Your task to perform on an android device: Go to Wikipedia Image 0: 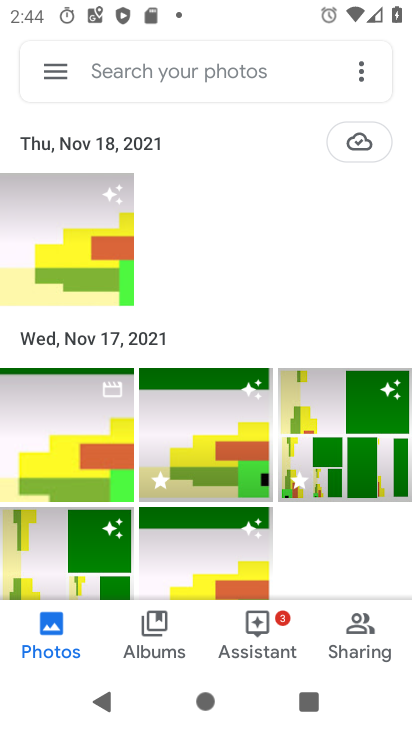
Step 0: press home button
Your task to perform on an android device: Go to Wikipedia Image 1: 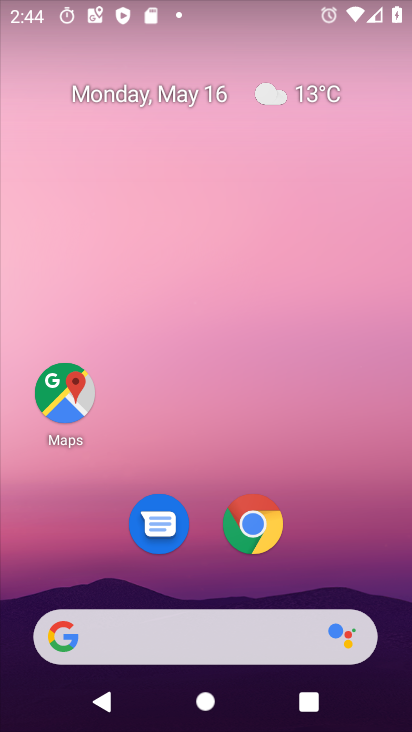
Step 1: click (262, 528)
Your task to perform on an android device: Go to Wikipedia Image 2: 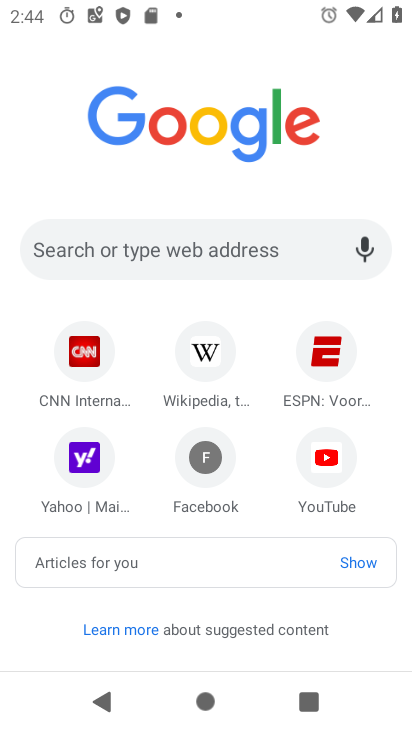
Step 2: click (212, 360)
Your task to perform on an android device: Go to Wikipedia Image 3: 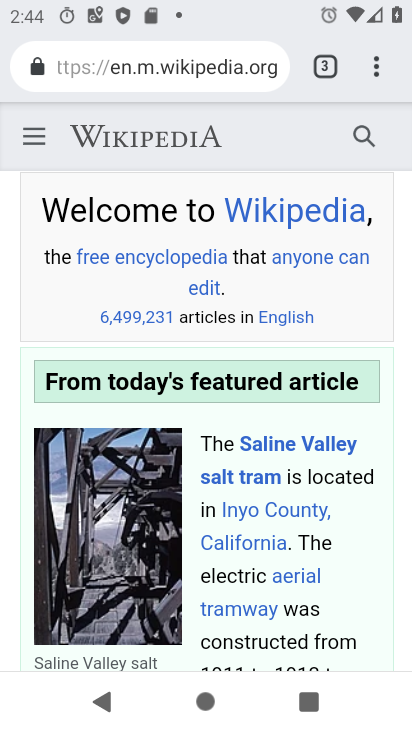
Step 3: task complete